Your task to perform on an android device: Go to notification settings Image 0: 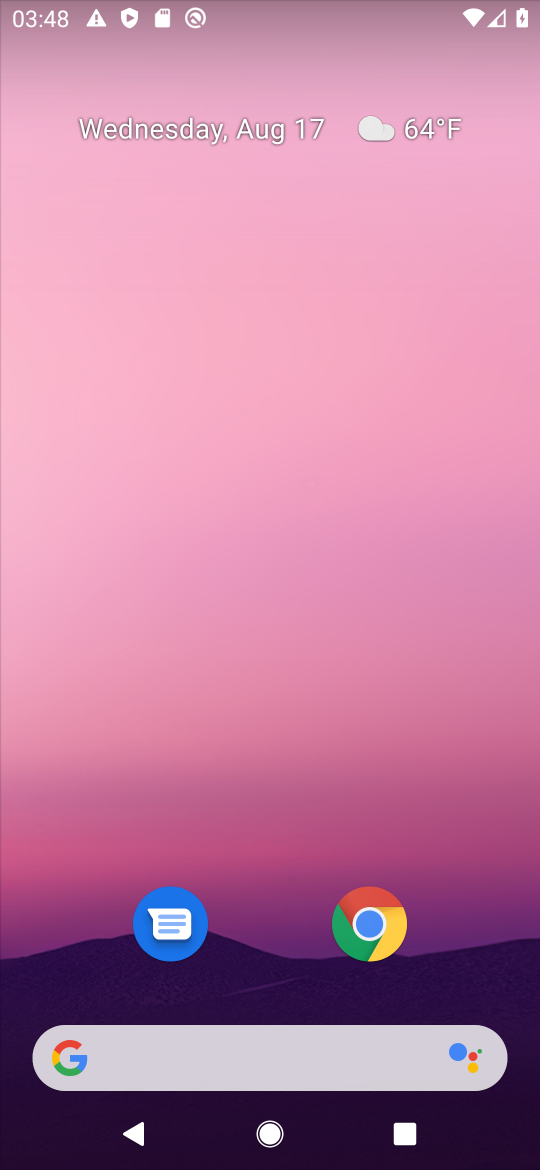
Step 0: press home button
Your task to perform on an android device: Go to notification settings Image 1: 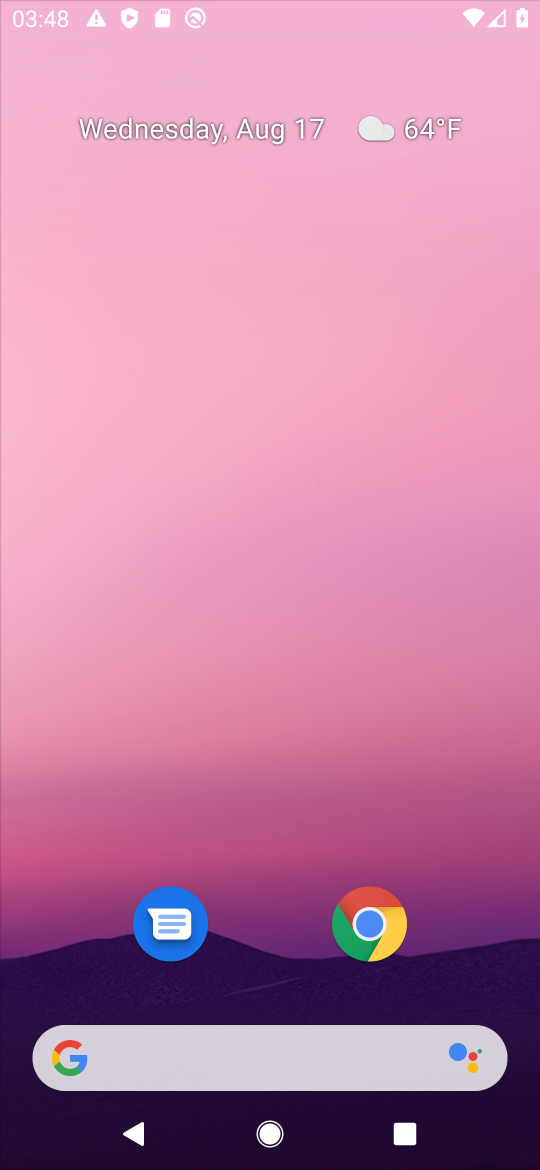
Step 1: drag from (277, 927) to (257, 130)
Your task to perform on an android device: Go to notification settings Image 2: 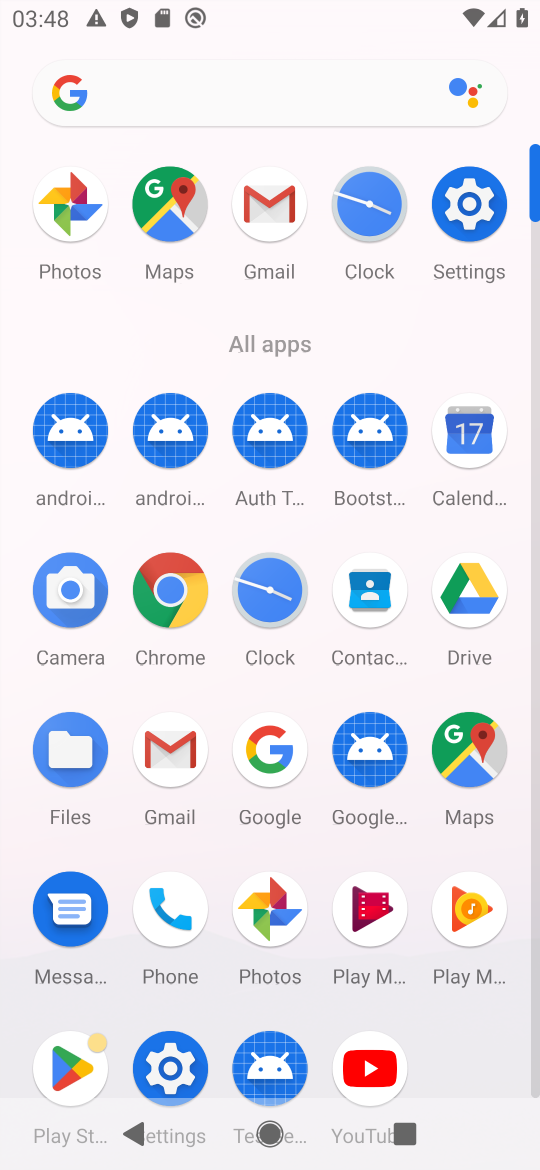
Step 2: click (460, 194)
Your task to perform on an android device: Go to notification settings Image 3: 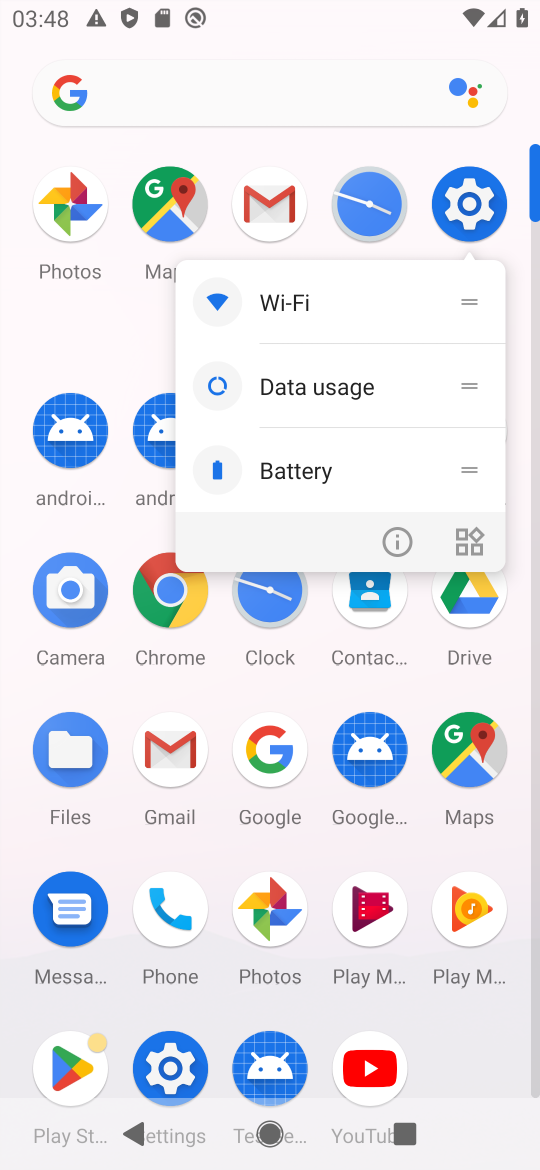
Step 3: click (460, 194)
Your task to perform on an android device: Go to notification settings Image 4: 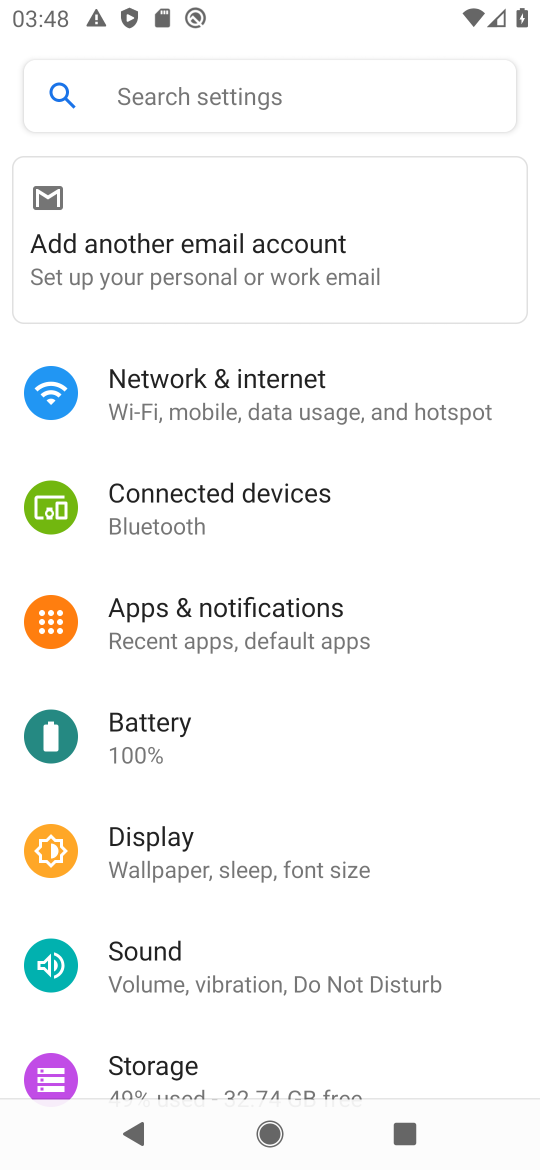
Step 4: click (165, 620)
Your task to perform on an android device: Go to notification settings Image 5: 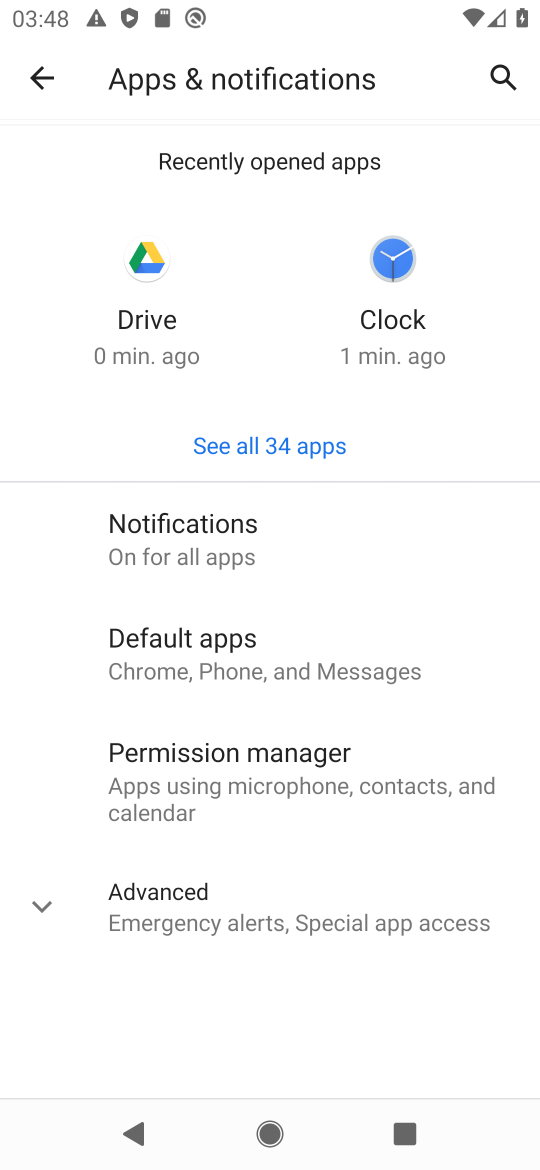
Step 5: click (137, 519)
Your task to perform on an android device: Go to notification settings Image 6: 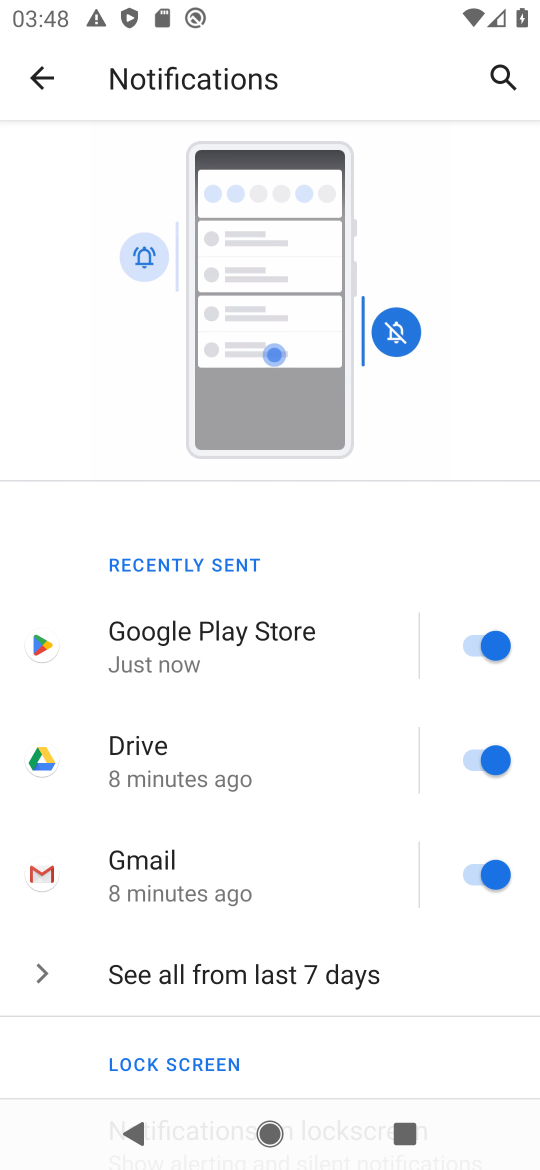
Step 6: task complete